Your task to perform on an android device: see tabs open on other devices in the chrome app Image 0: 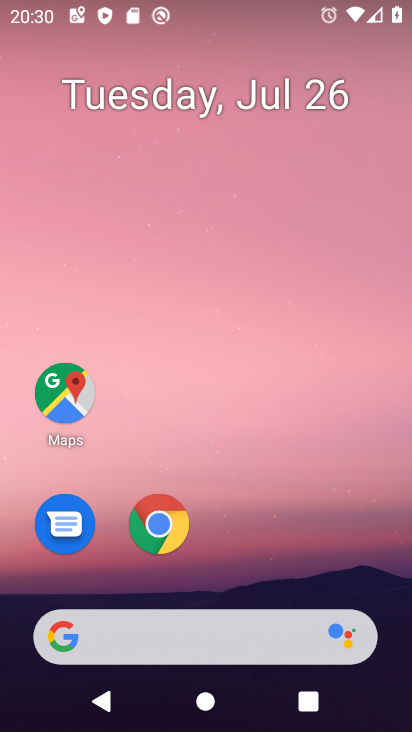
Step 0: click (176, 519)
Your task to perform on an android device: see tabs open on other devices in the chrome app Image 1: 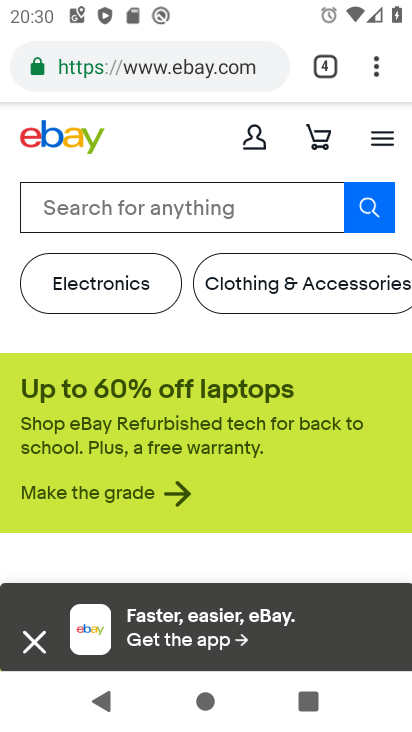
Step 1: click (375, 68)
Your task to perform on an android device: see tabs open on other devices in the chrome app Image 2: 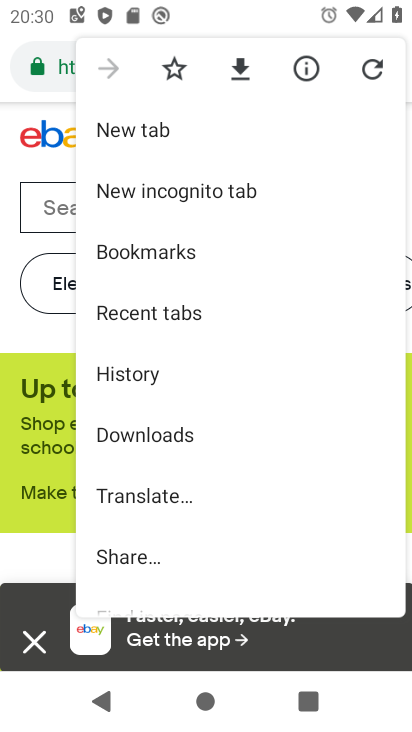
Step 2: click (179, 303)
Your task to perform on an android device: see tabs open on other devices in the chrome app Image 3: 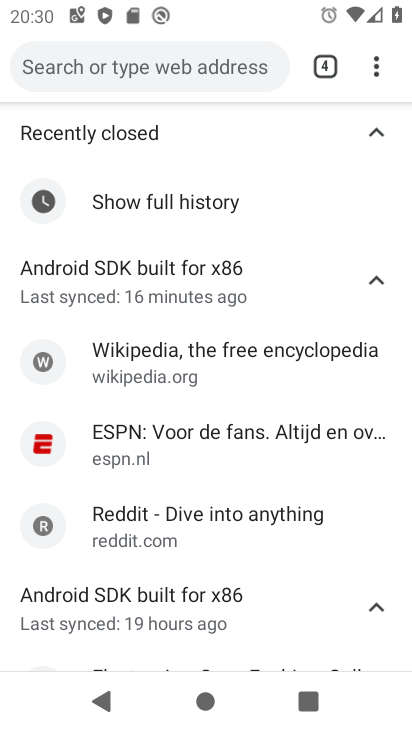
Step 3: task complete